Your task to perform on an android device: toggle improve location accuracy Image 0: 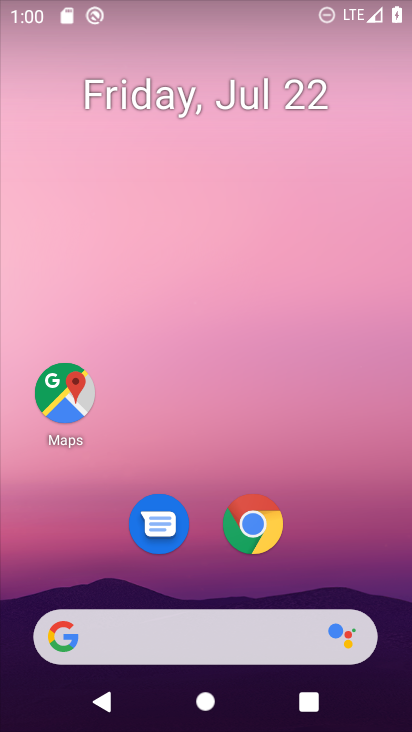
Step 0: drag from (338, 570) to (343, 61)
Your task to perform on an android device: toggle improve location accuracy Image 1: 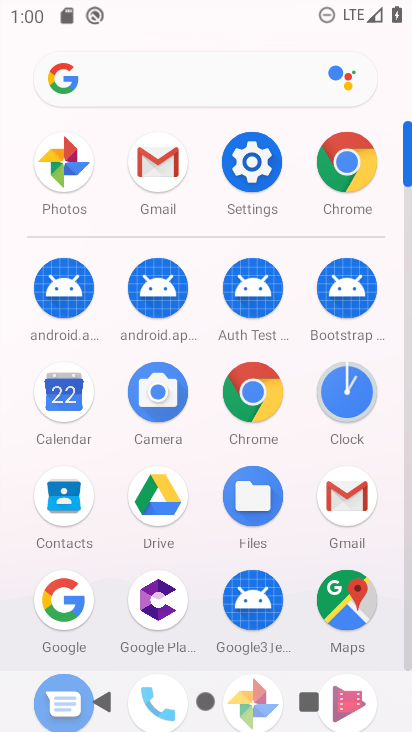
Step 1: click (265, 158)
Your task to perform on an android device: toggle improve location accuracy Image 2: 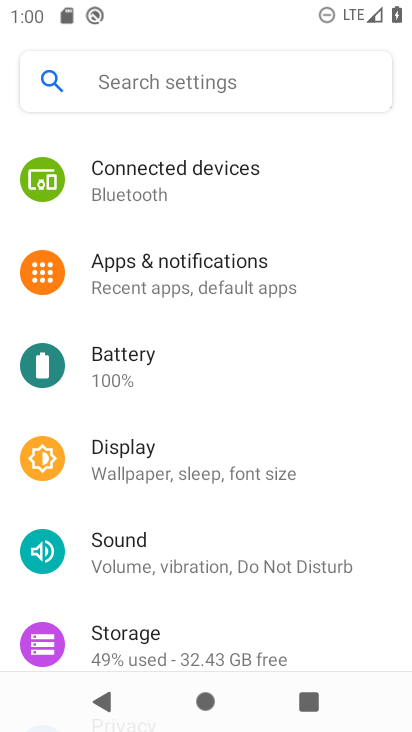
Step 2: drag from (193, 587) to (277, 4)
Your task to perform on an android device: toggle improve location accuracy Image 3: 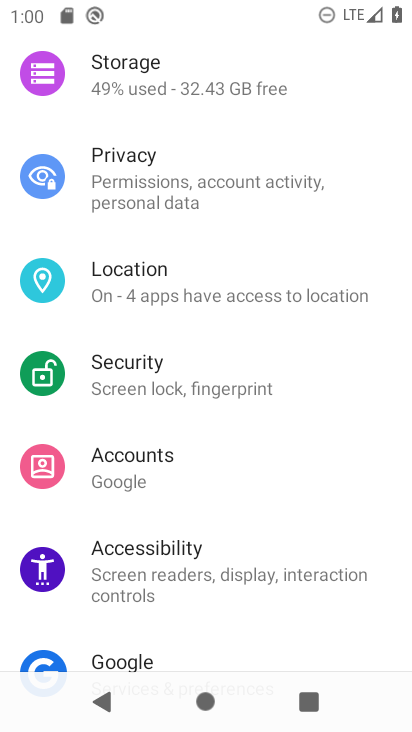
Step 3: click (217, 292)
Your task to perform on an android device: toggle improve location accuracy Image 4: 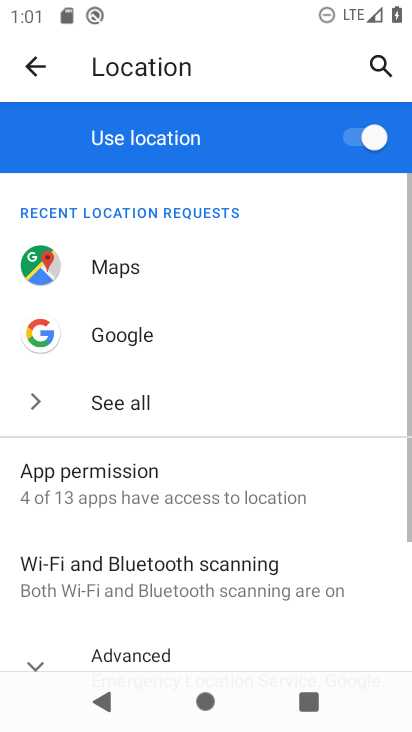
Step 4: click (36, 657)
Your task to perform on an android device: toggle improve location accuracy Image 5: 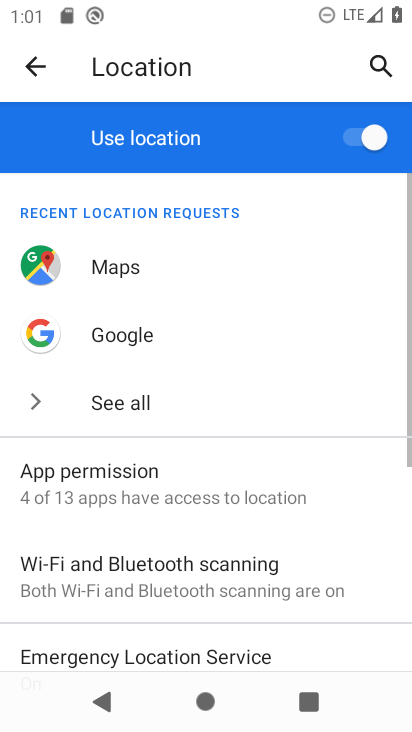
Step 5: drag from (219, 582) to (269, 251)
Your task to perform on an android device: toggle improve location accuracy Image 6: 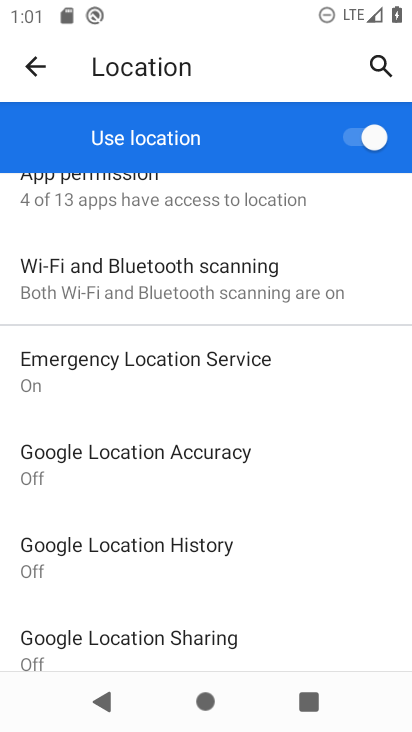
Step 6: click (167, 465)
Your task to perform on an android device: toggle improve location accuracy Image 7: 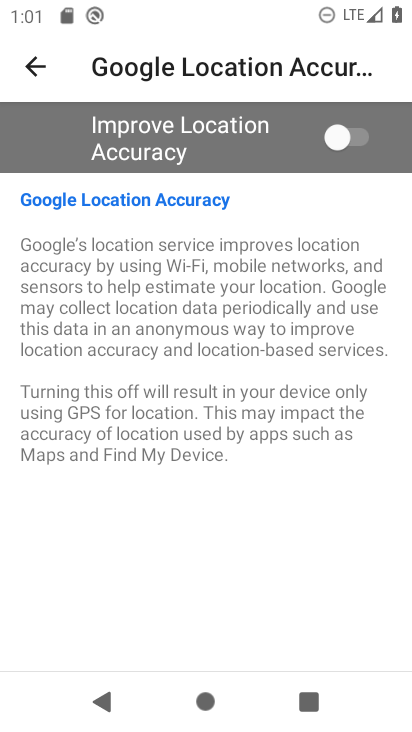
Step 7: click (338, 139)
Your task to perform on an android device: toggle improve location accuracy Image 8: 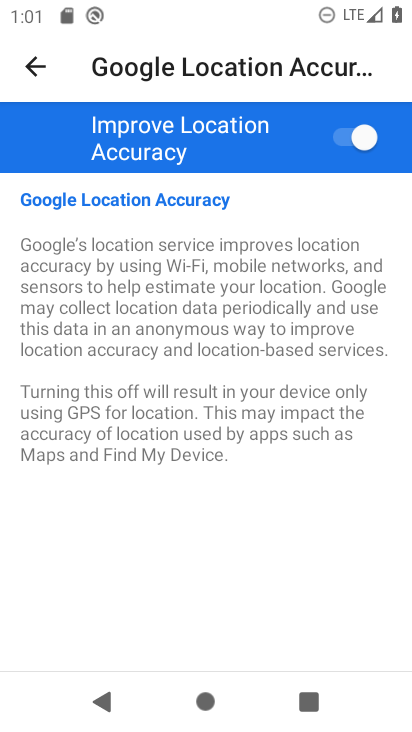
Step 8: task complete